Your task to perform on an android device: open app "Fetch Rewards" (install if not already installed) Image 0: 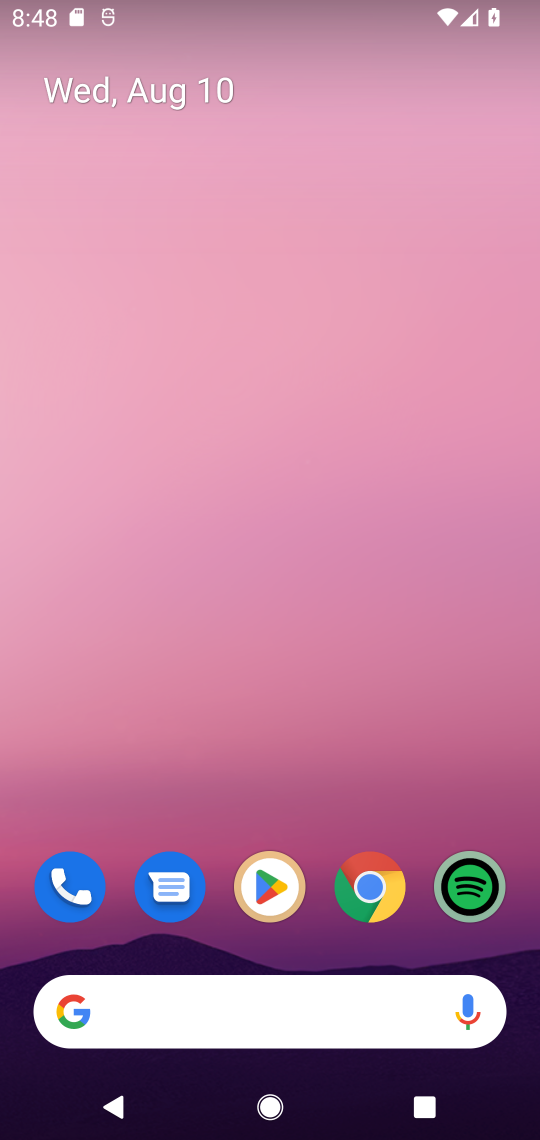
Step 0: click (264, 895)
Your task to perform on an android device: open app "Fetch Rewards" (install if not already installed) Image 1: 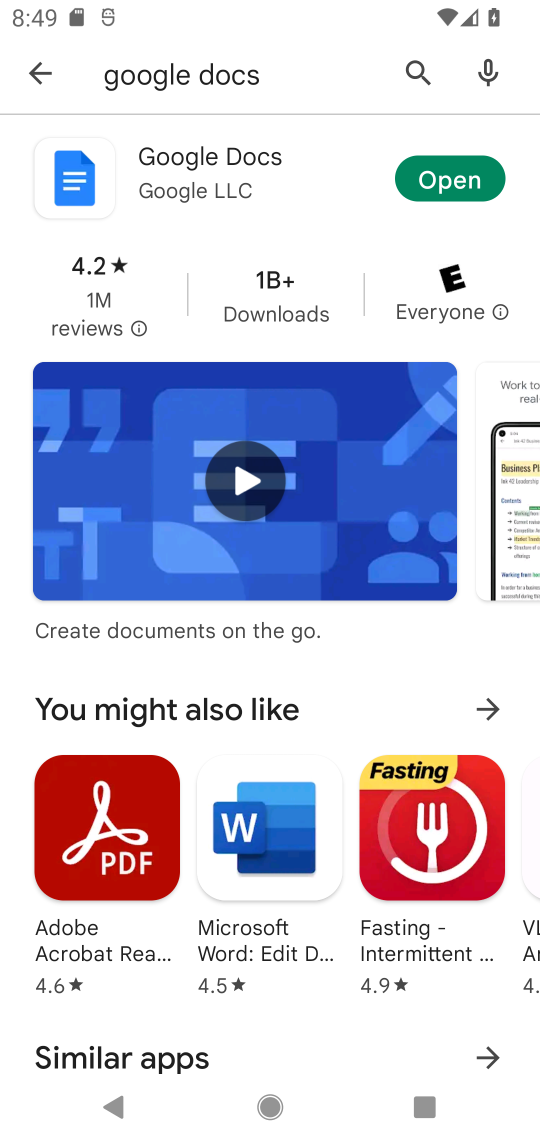
Step 1: click (404, 79)
Your task to perform on an android device: open app "Fetch Rewards" (install if not already installed) Image 2: 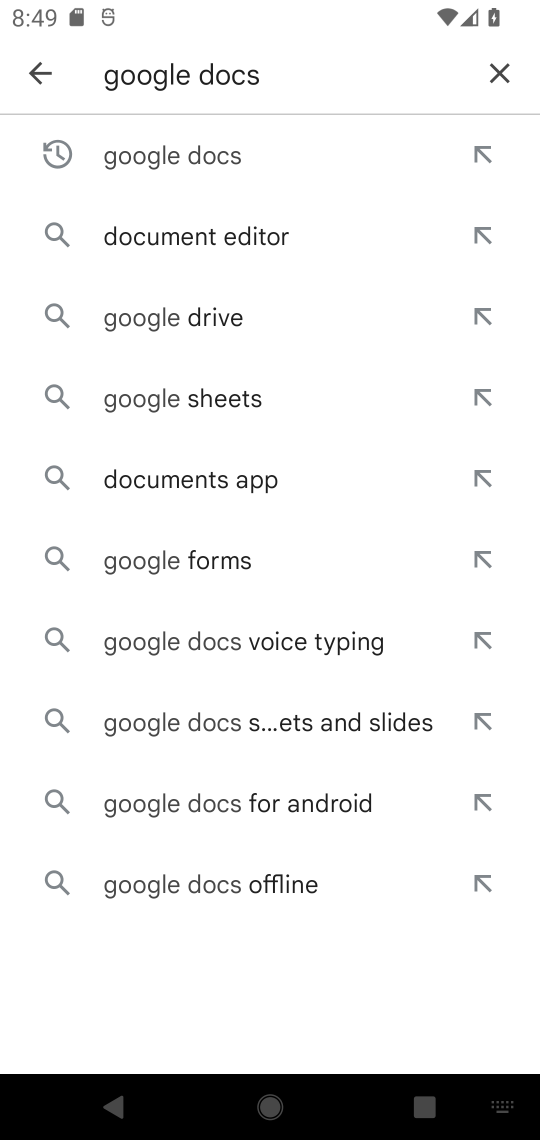
Step 2: click (506, 79)
Your task to perform on an android device: open app "Fetch Rewards" (install if not already installed) Image 3: 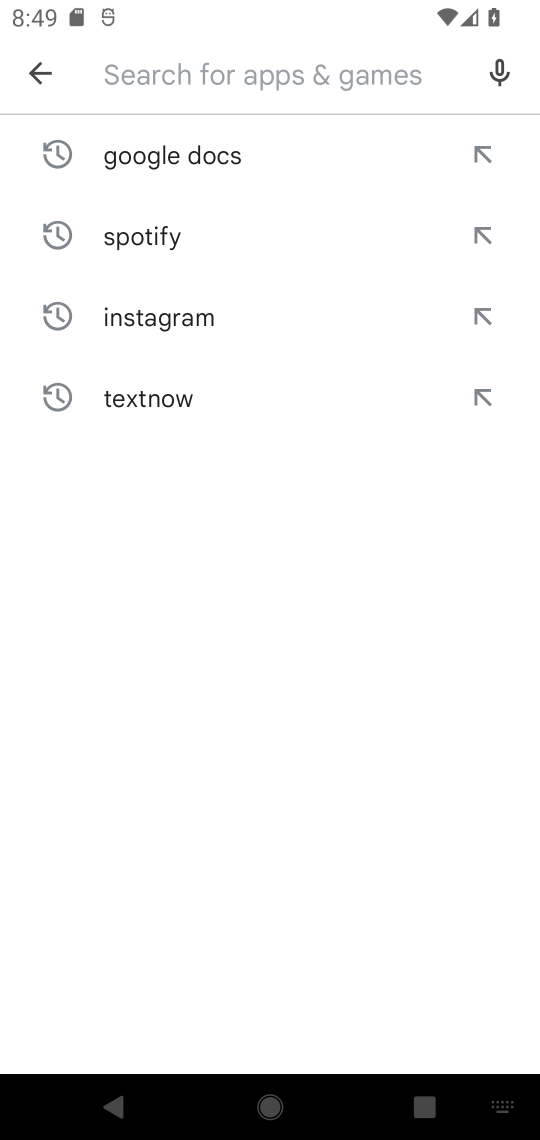
Step 3: type "fetch"
Your task to perform on an android device: open app "Fetch Rewards" (install if not already installed) Image 4: 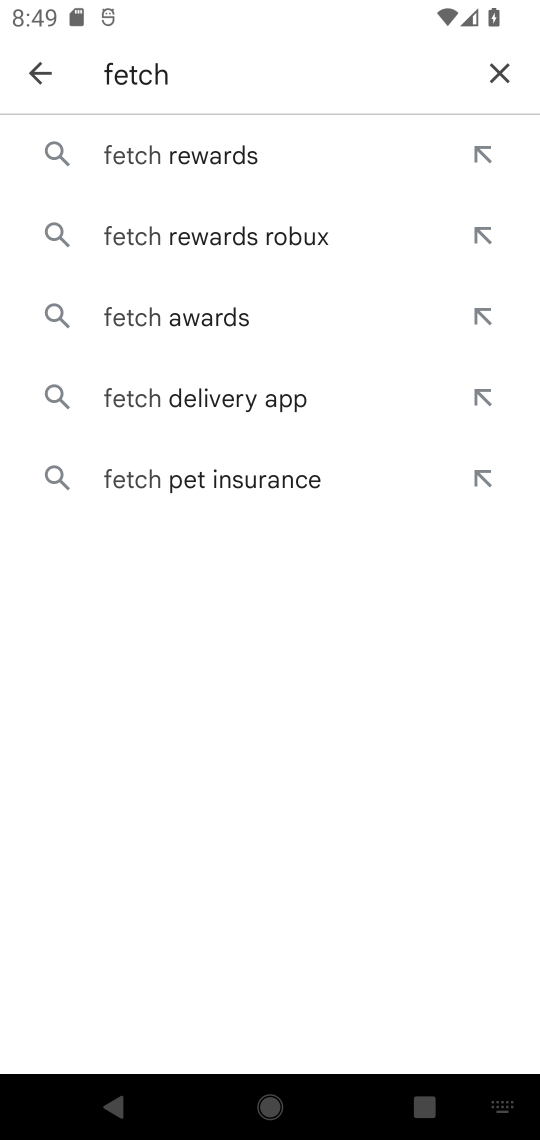
Step 4: click (262, 167)
Your task to perform on an android device: open app "Fetch Rewards" (install if not already installed) Image 5: 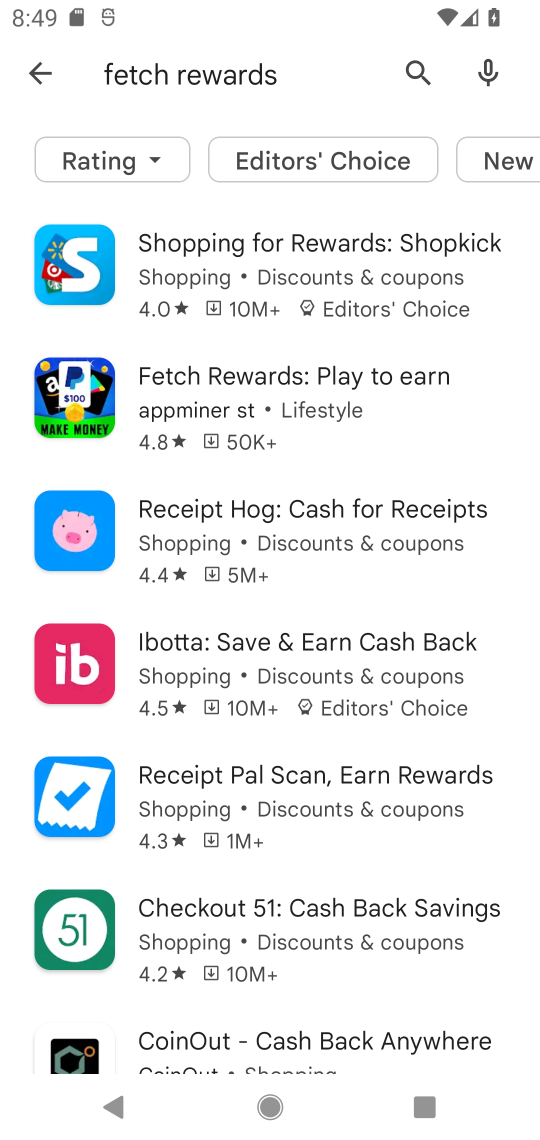
Step 5: click (373, 376)
Your task to perform on an android device: open app "Fetch Rewards" (install if not already installed) Image 6: 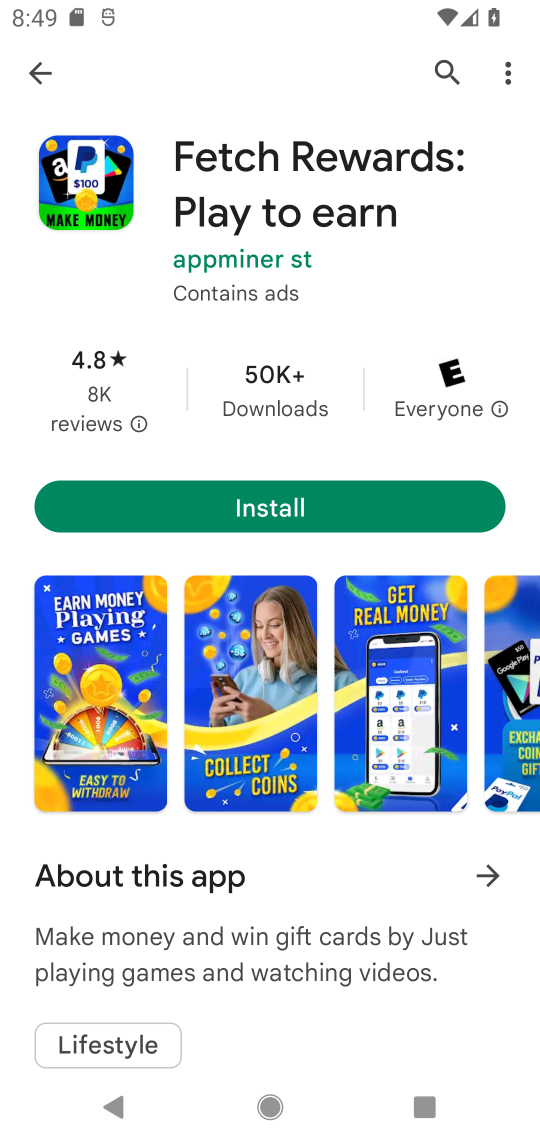
Step 6: click (326, 505)
Your task to perform on an android device: open app "Fetch Rewards" (install if not already installed) Image 7: 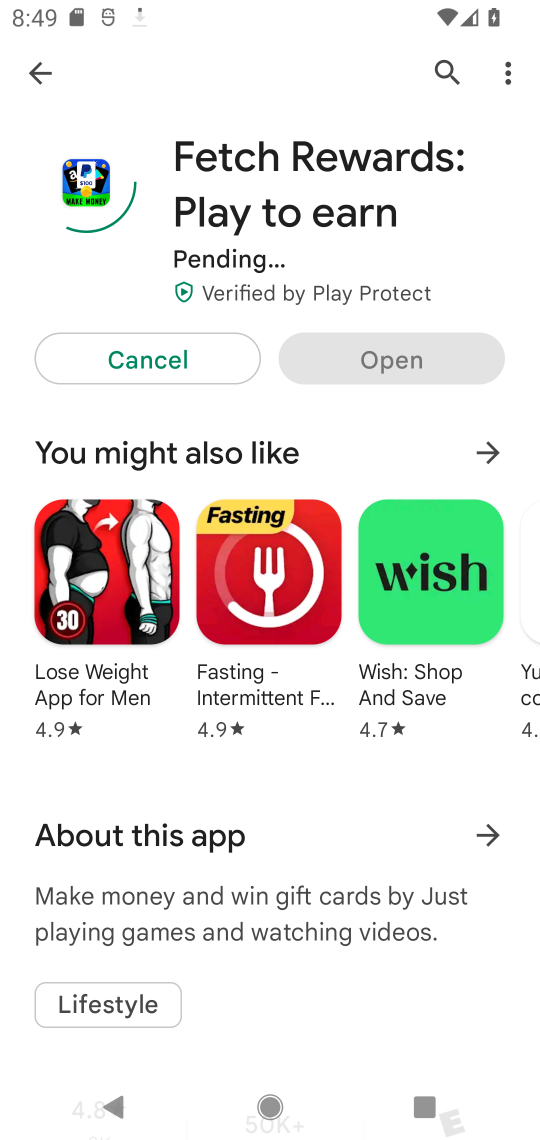
Step 7: task complete